Your task to perform on an android device: Search for Mexican restaurants on Maps Image 0: 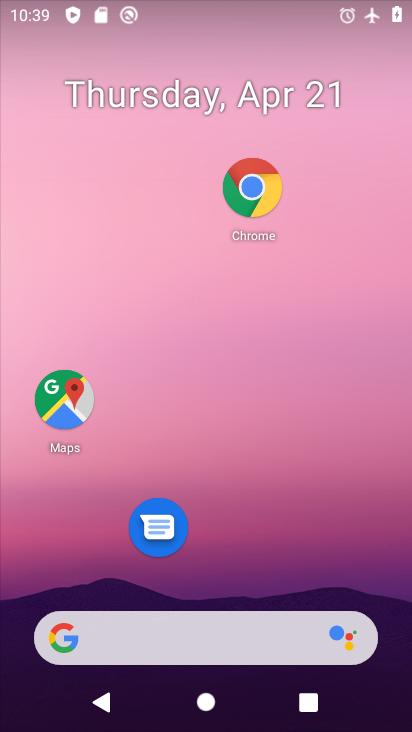
Step 0: drag from (236, 663) to (310, 230)
Your task to perform on an android device: Search for Mexican restaurants on Maps Image 1: 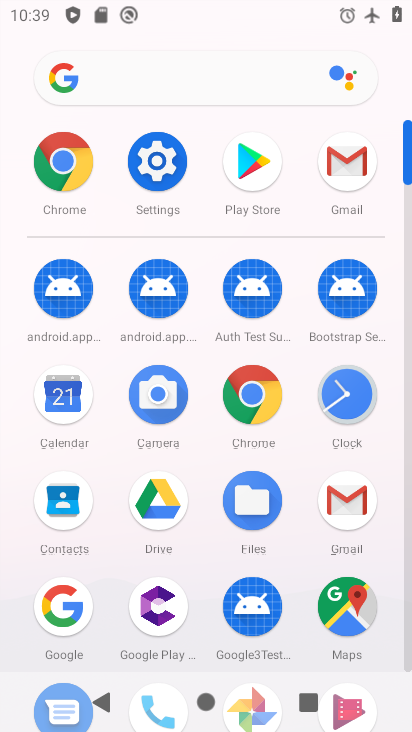
Step 1: click (406, 551)
Your task to perform on an android device: Search for Mexican restaurants on Maps Image 2: 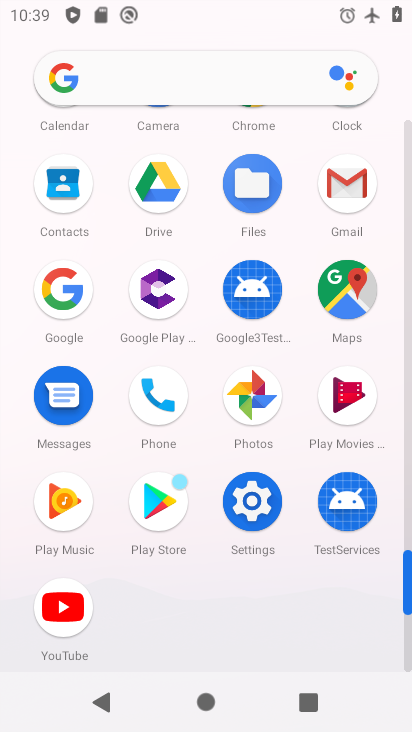
Step 2: click (354, 312)
Your task to perform on an android device: Search for Mexican restaurants on Maps Image 3: 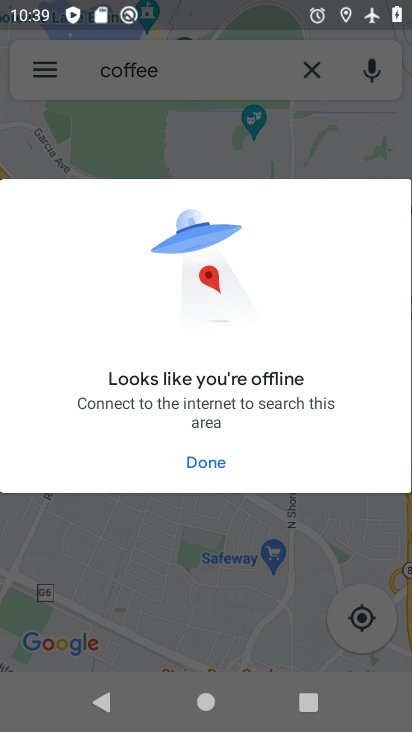
Step 3: click (214, 468)
Your task to perform on an android device: Search for Mexican restaurants on Maps Image 4: 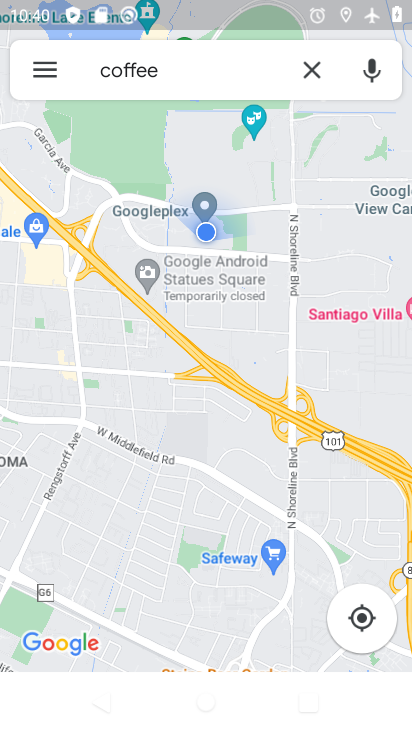
Step 4: click (312, 68)
Your task to perform on an android device: Search for Mexican restaurants on Maps Image 5: 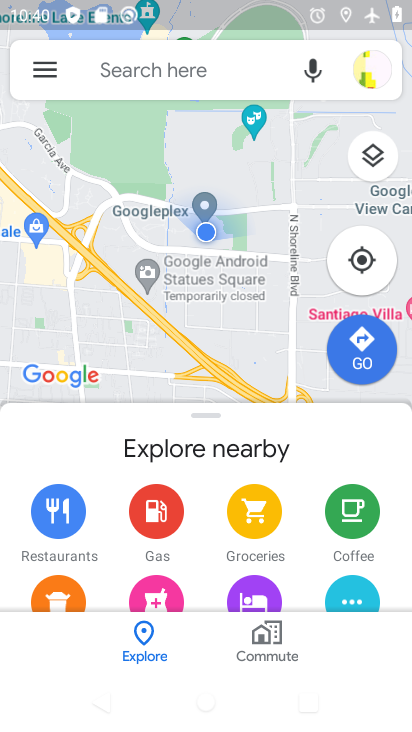
Step 5: task complete